Your task to perform on an android device: turn on showing notifications on the lock screen Image 0: 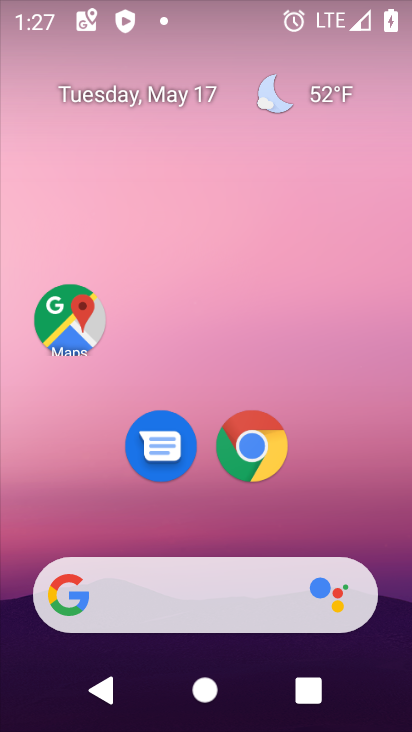
Step 0: drag from (189, 507) to (251, 220)
Your task to perform on an android device: turn on showing notifications on the lock screen Image 1: 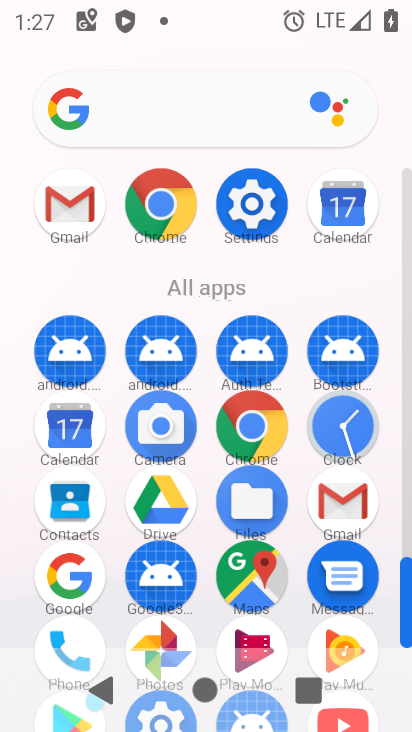
Step 1: click (244, 196)
Your task to perform on an android device: turn on showing notifications on the lock screen Image 2: 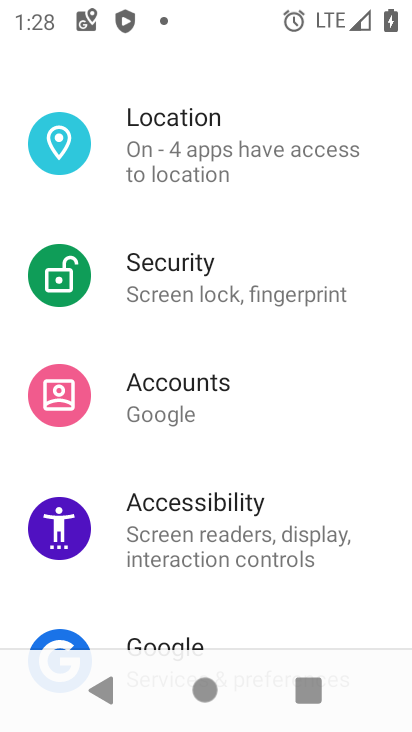
Step 2: drag from (236, 454) to (268, 336)
Your task to perform on an android device: turn on showing notifications on the lock screen Image 3: 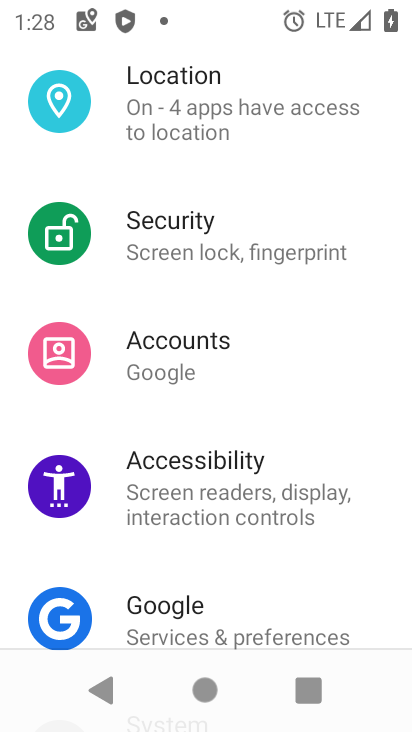
Step 3: drag from (206, 488) to (293, 223)
Your task to perform on an android device: turn on showing notifications on the lock screen Image 4: 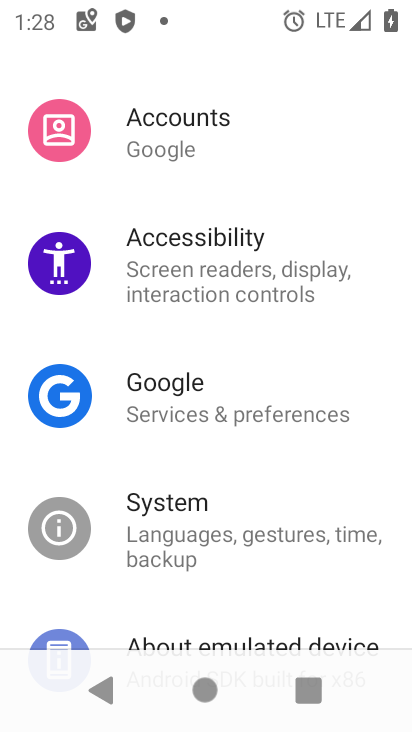
Step 4: drag from (214, 495) to (330, 207)
Your task to perform on an android device: turn on showing notifications on the lock screen Image 5: 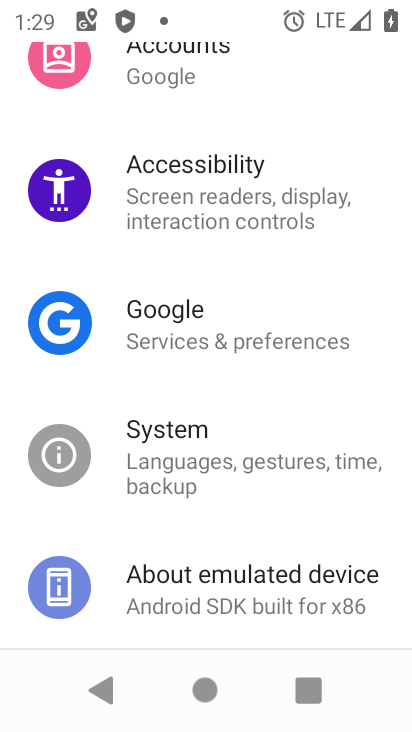
Step 5: drag from (221, 495) to (299, 267)
Your task to perform on an android device: turn on showing notifications on the lock screen Image 6: 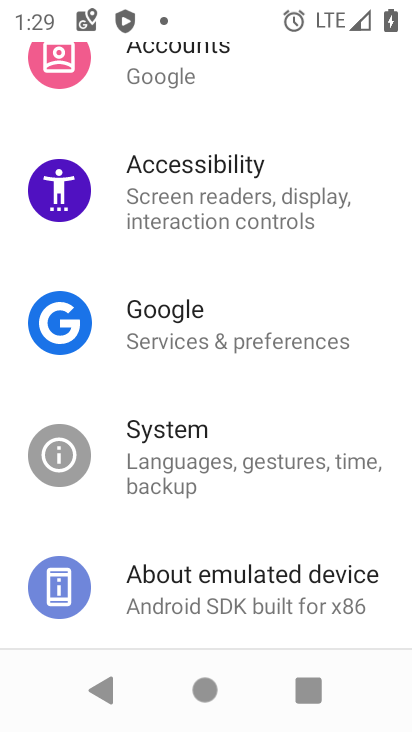
Step 6: drag from (228, 218) to (223, 591)
Your task to perform on an android device: turn on showing notifications on the lock screen Image 7: 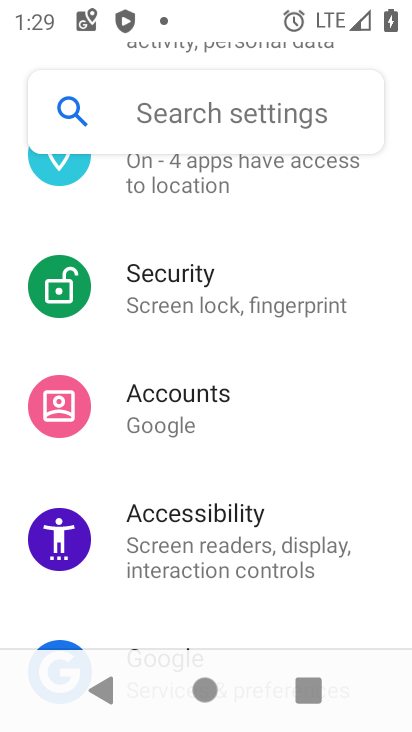
Step 7: drag from (278, 278) to (243, 564)
Your task to perform on an android device: turn on showing notifications on the lock screen Image 8: 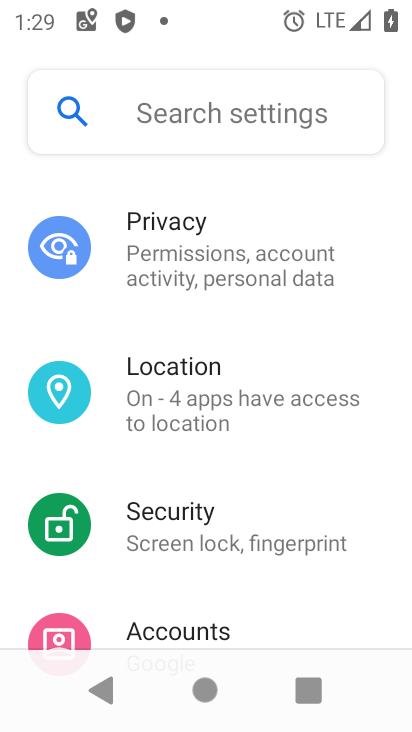
Step 8: drag from (270, 244) to (260, 519)
Your task to perform on an android device: turn on showing notifications on the lock screen Image 9: 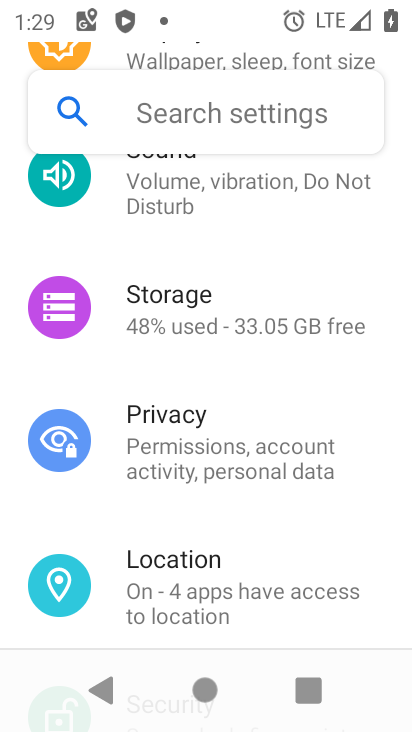
Step 9: drag from (235, 208) to (218, 479)
Your task to perform on an android device: turn on showing notifications on the lock screen Image 10: 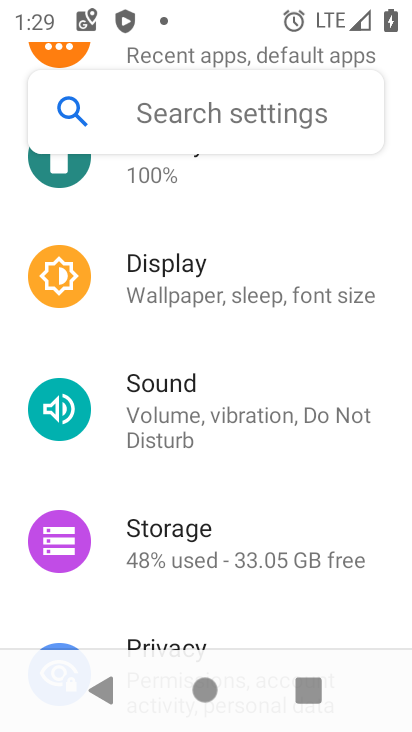
Step 10: drag from (256, 209) to (209, 513)
Your task to perform on an android device: turn on showing notifications on the lock screen Image 11: 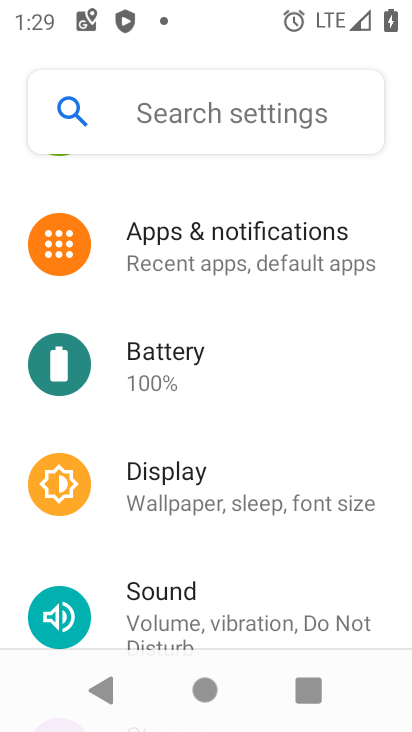
Step 11: click (250, 235)
Your task to perform on an android device: turn on showing notifications on the lock screen Image 12: 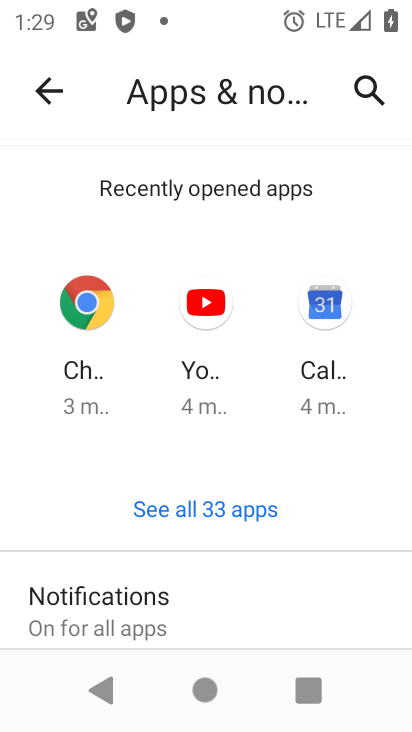
Step 12: click (107, 603)
Your task to perform on an android device: turn on showing notifications on the lock screen Image 13: 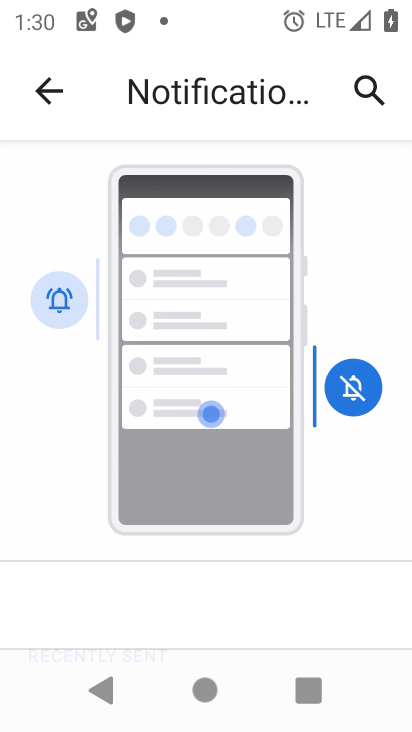
Step 13: drag from (194, 550) to (370, 215)
Your task to perform on an android device: turn on showing notifications on the lock screen Image 14: 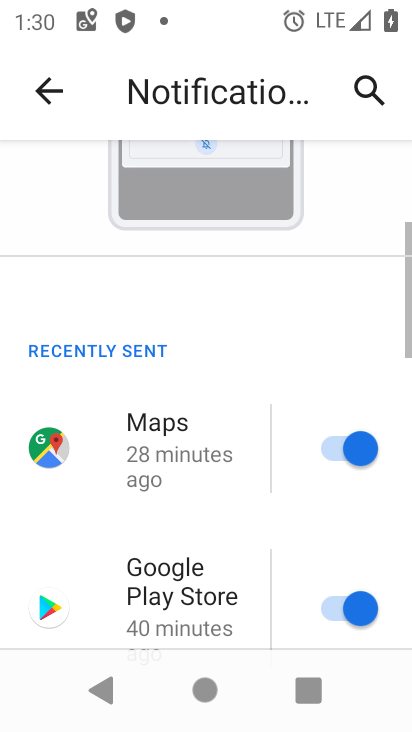
Step 14: drag from (240, 448) to (356, 207)
Your task to perform on an android device: turn on showing notifications on the lock screen Image 15: 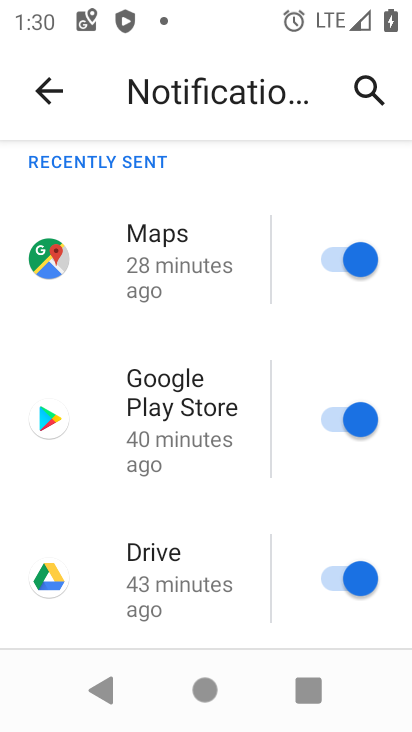
Step 15: drag from (258, 460) to (362, 184)
Your task to perform on an android device: turn on showing notifications on the lock screen Image 16: 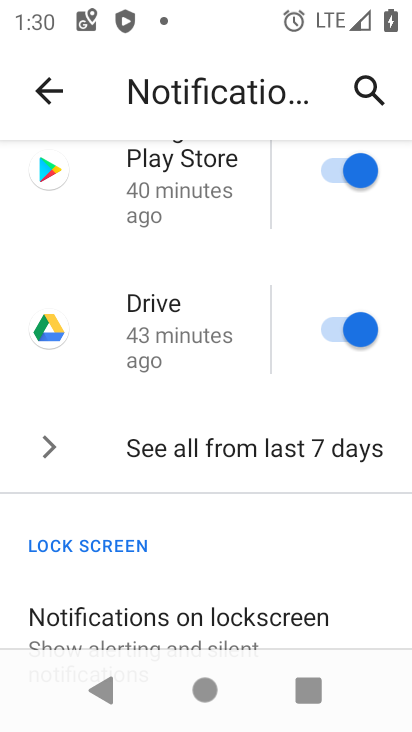
Step 16: drag from (153, 597) to (238, 350)
Your task to perform on an android device: turn on showing notifications on the lock screen Image 17: 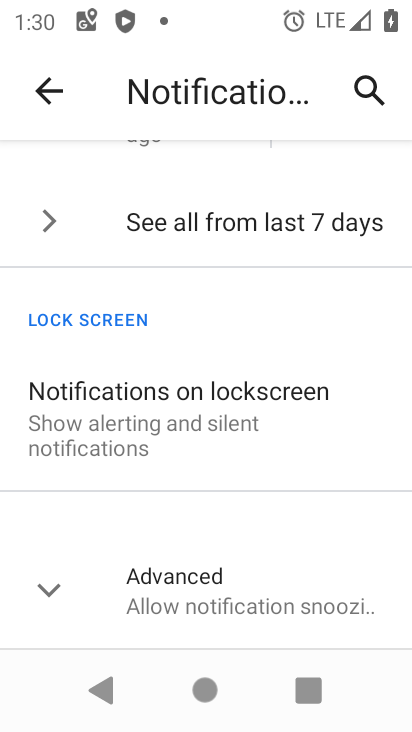
Step 17: click (119, 434)
Your task to perform on an android device: turn on showing notifications on the lock screen Image 18: 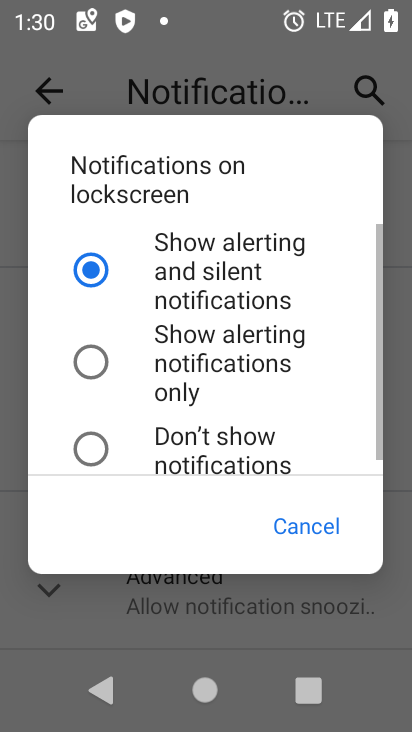
Step 18: task complete